Your task to perform on an android device: Show me productivity apps on the Play Store Image 0: 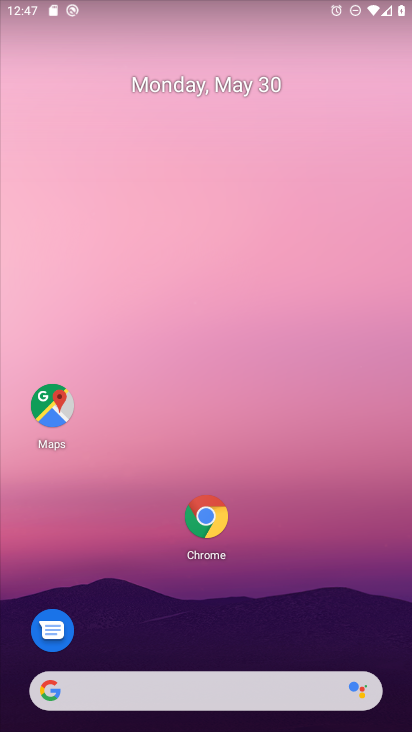
Step 0: press home button
Your task to perform on an android device: Show me productivity apps on the Play Store Image 1: 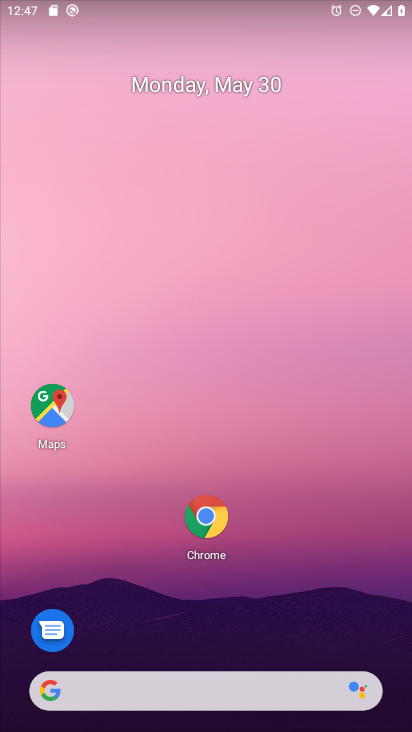
Step 1: drag from (183, 694) to (270, 102)
Your task to perform on an android device: Show me productivity apps on the Play Store Image 2: 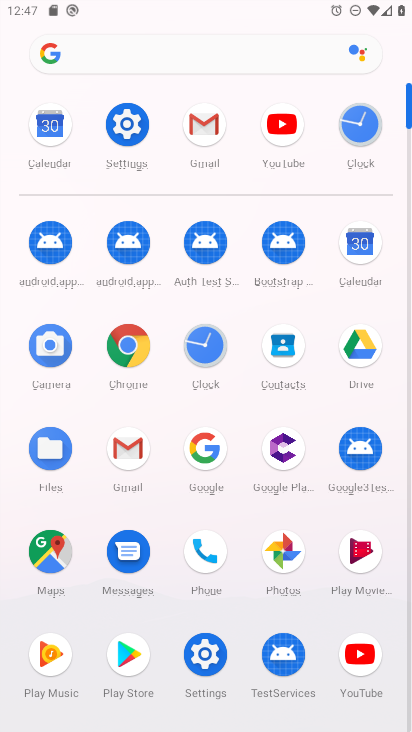
Step 2: drag from (166, 636) to (247, 170)
Your task to perform on an android device: Show me productivity apps on the Play Store Image 3: 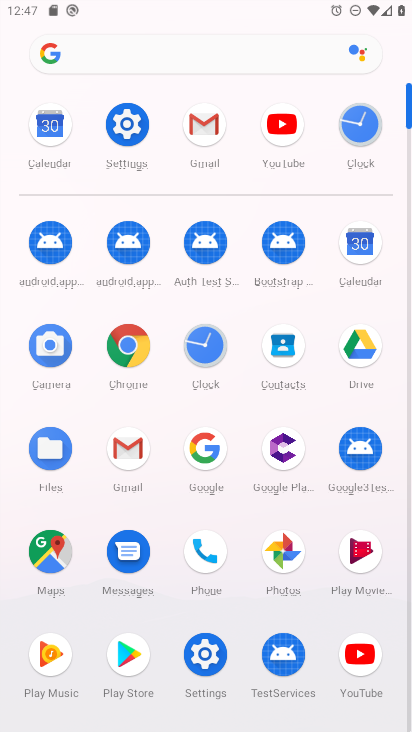
Step 3: click (132, 655)
Your task to perform on an android device: Show me productivity apps on the Play Store Image 4: 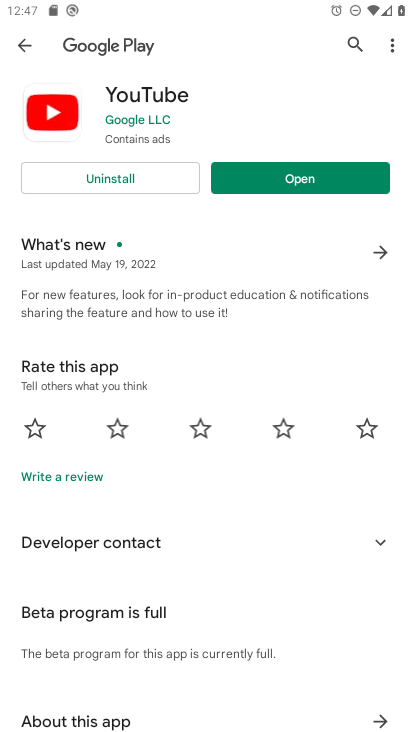
Step 4: click (23, 40)
Your task to perform on an android device: Show me productivity apps on the Play Store Image 5: 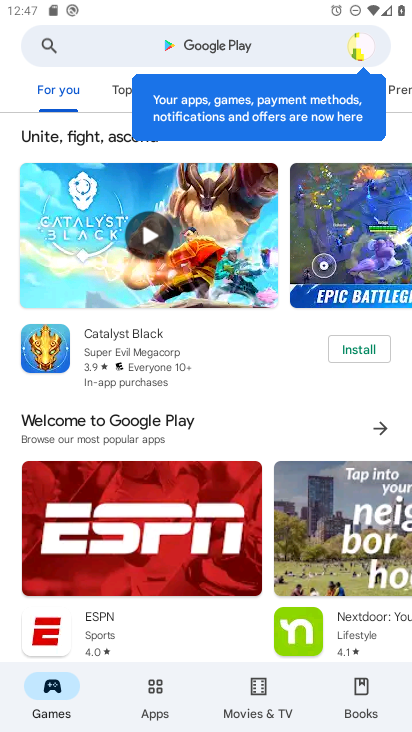
Step 5: click (155, 685)
Your task to perform on an android device: Show me productivity apps on the Play Store Image 6: 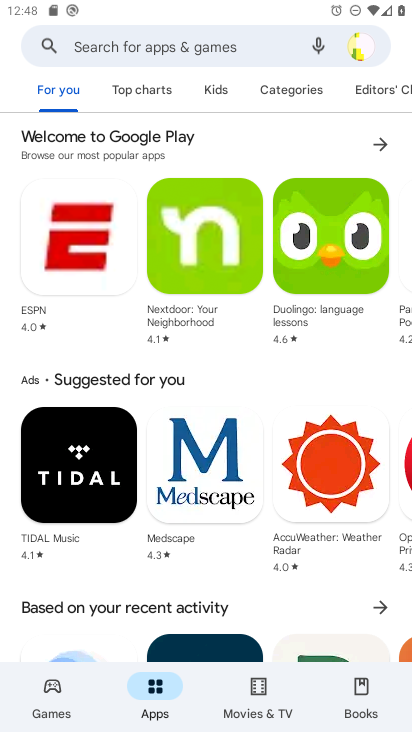
Step 6: click (290, 88)
Your task to perform on an android device: Show me productivity apps on the Play Store Image 7: 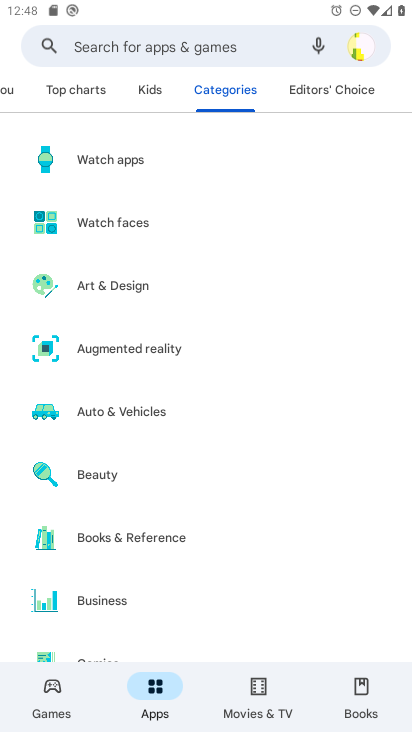
Step 7: drag from (223, 613) to (284, 28)
Your task to perform on an android device: Show me productivity apps on the Play Store Image 8: 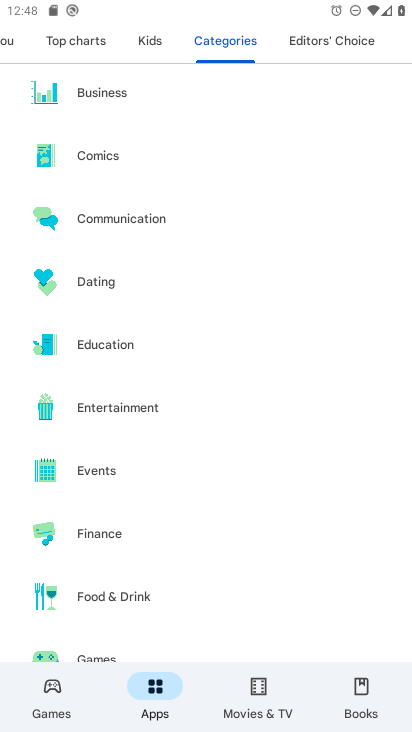
Step 8: drag from (271, 610) to (284, 27)
Your task to perform on an android device: Show me productivity apps on the Play Store Image 9: 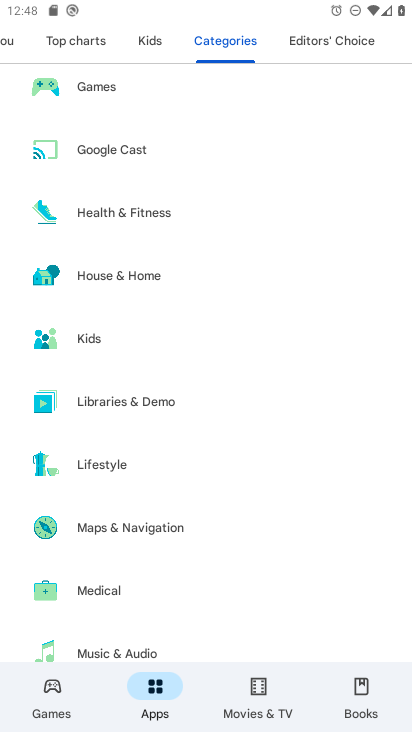
Step 9: drag from (269, 614) to (271, 111)
Your task to perform on an android device: Show me productivity apps on the Play Store Image 10: 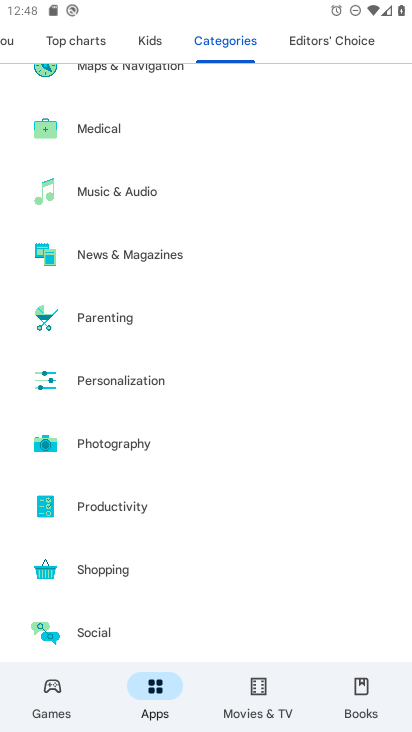
Step 10: click (110, 511)
Your task to perform on an android device: Show me productivity apps on the Play Store Image 11: 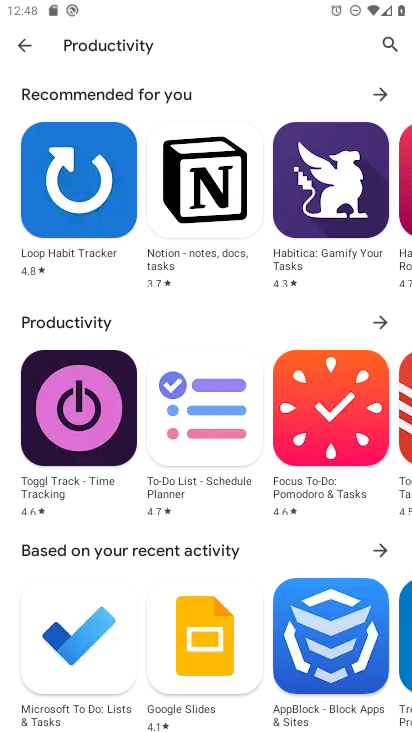
Step 11: task complete